Your task to perform on an android device: Turn on the flashlight Image 0: 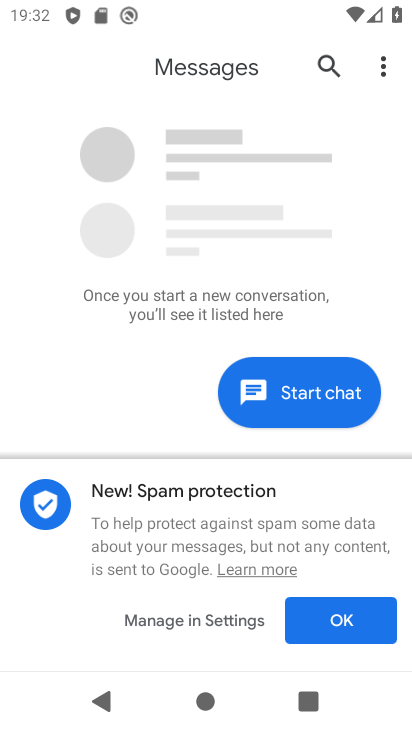
Step 0: press home button
Your task to perform on an android device: Turn on the flashlight Image 1: 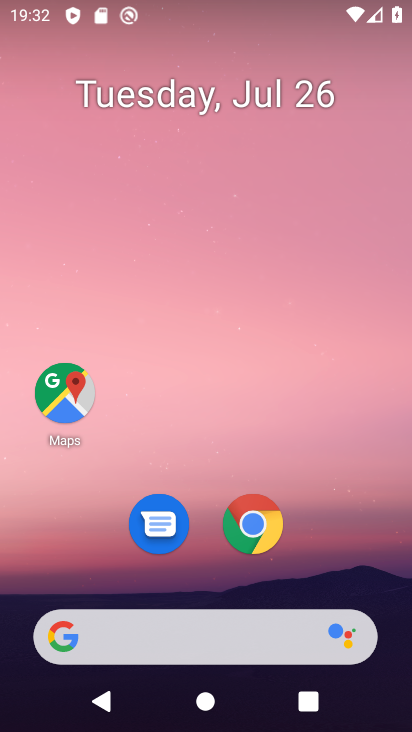
Step 1: task complete